Your task to perform on an android device: snooze an email in the gmail app Image 0: 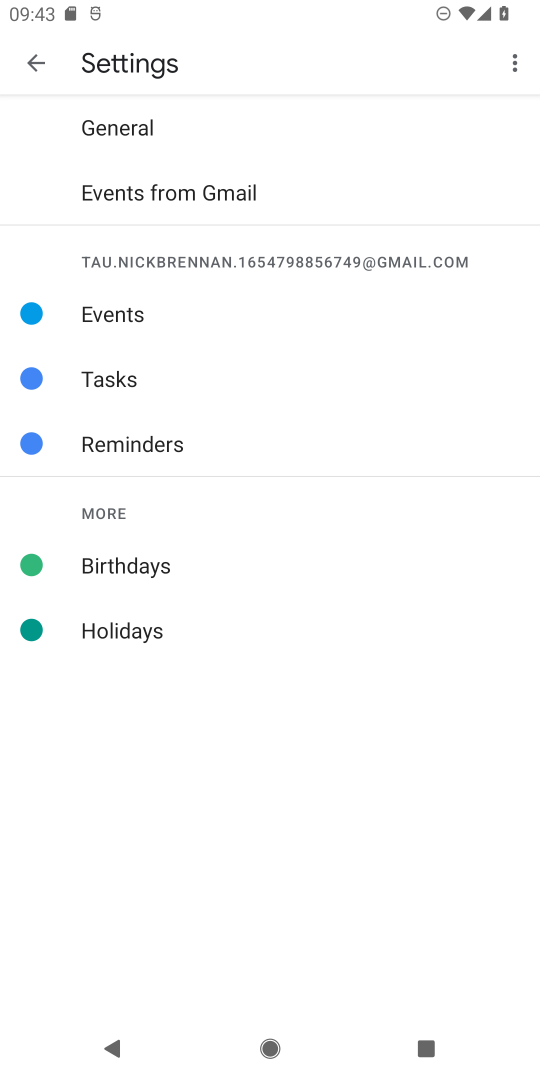
Step 0: press home button
Your task to perform on an android device: snooze an email in the gmail app Image 1: 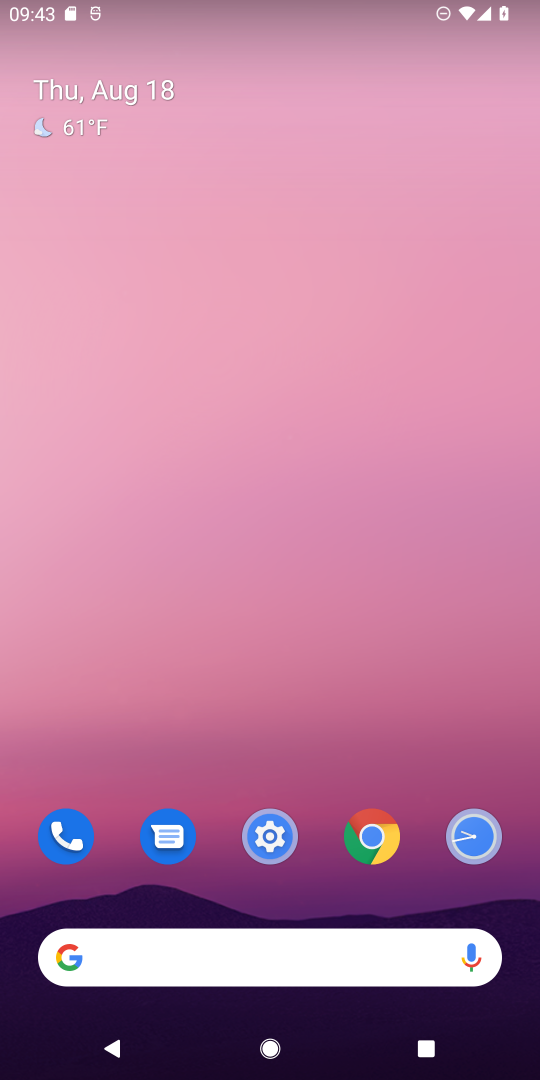
Step 1: drag from (420, 783) to (419, 198)
Your task to perform on an android device: snooze an email in the gmail app Image 2: 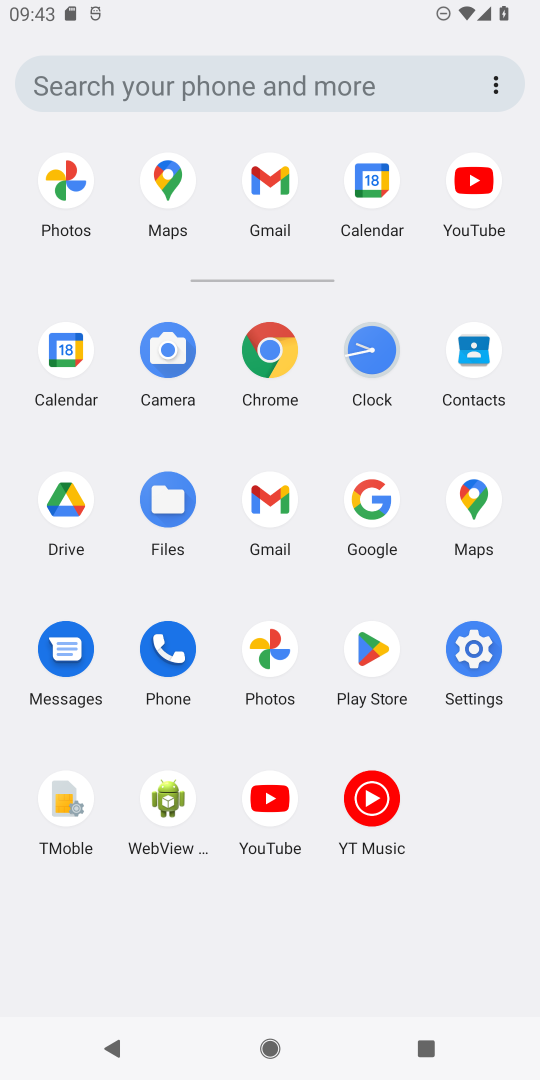
Step 2: click (279, 503)
Your task to perform on an android device: snooze an email in the gmail app Image 3: 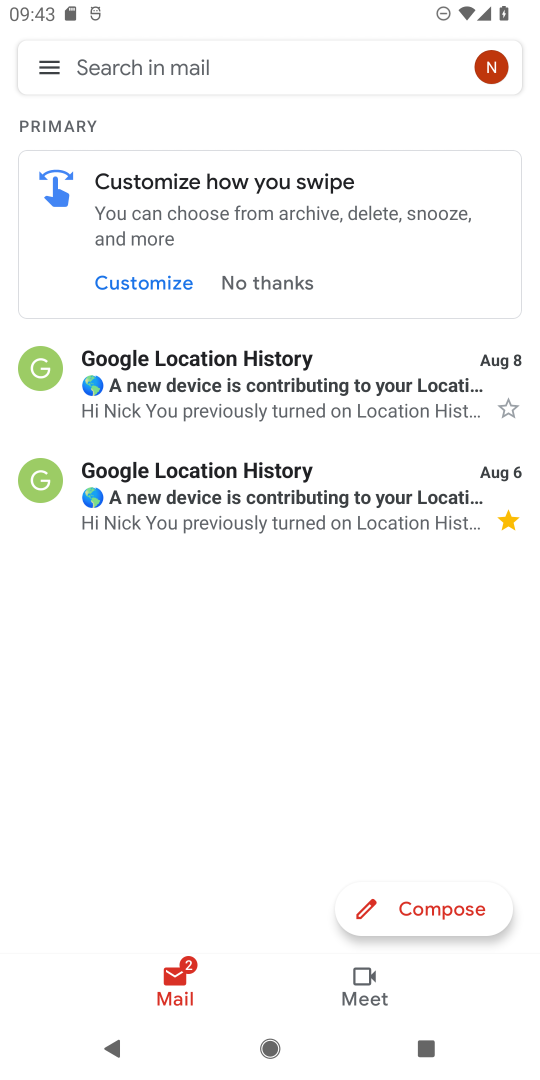
Step 3: click (43, 58)
Your task to perform on an android device: snooze an email in the gmail app Image 4: 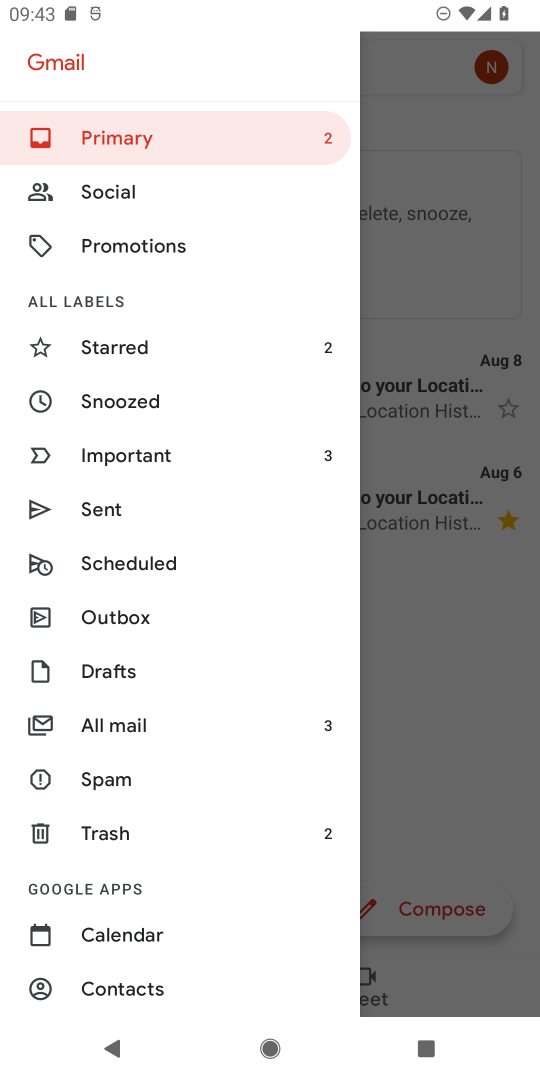
Step 4: click (425, 382)
Your task to perform on an android device: snooze an email in the gmail app Image 5: 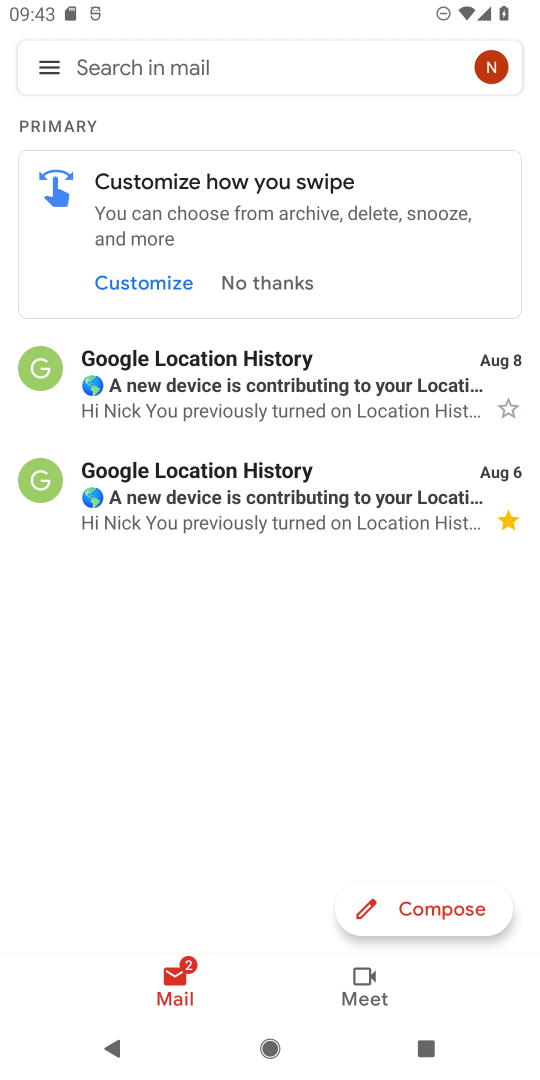
Step 5: click (365, 394)
Your task to perform on an android device: snooze an email in the gmail app Image 6: 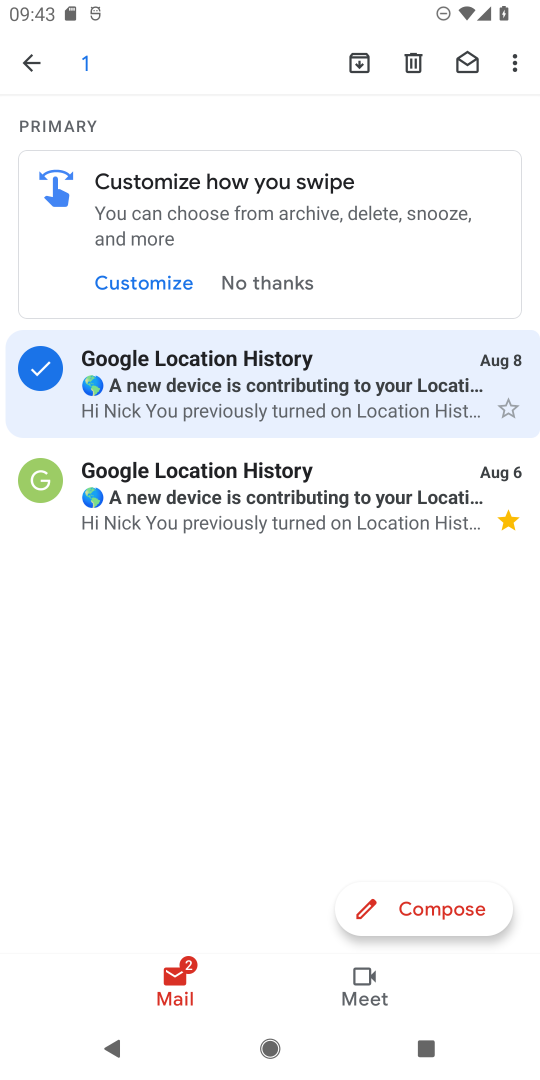
Step 6: click (513, 64)
Your task to perform on an android device: snooze an email in the gmail app Image 7: 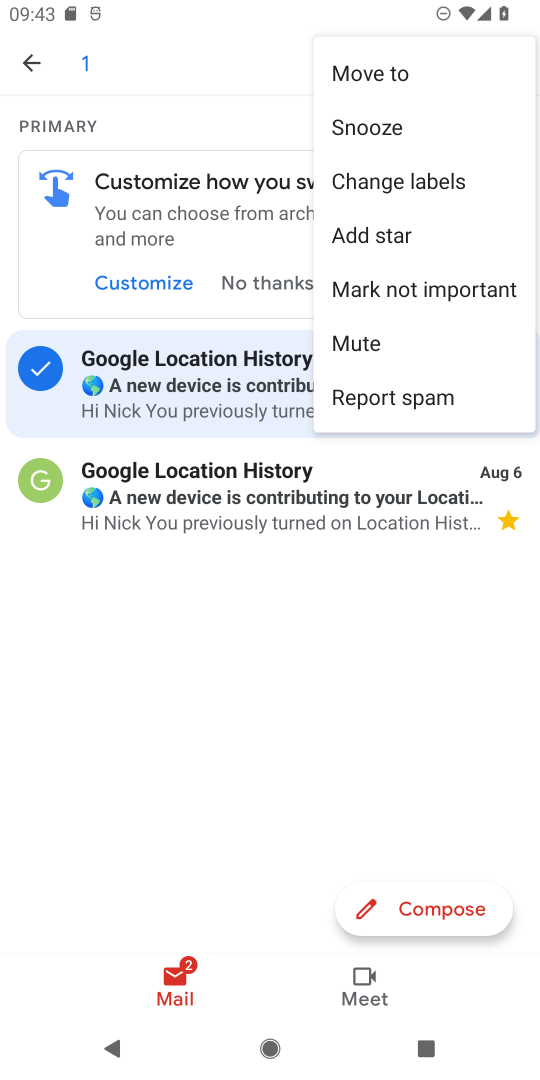
Step 7: click (381, 129)
Your task to perform on an android device: snooze an email in the gmail app Image 8: 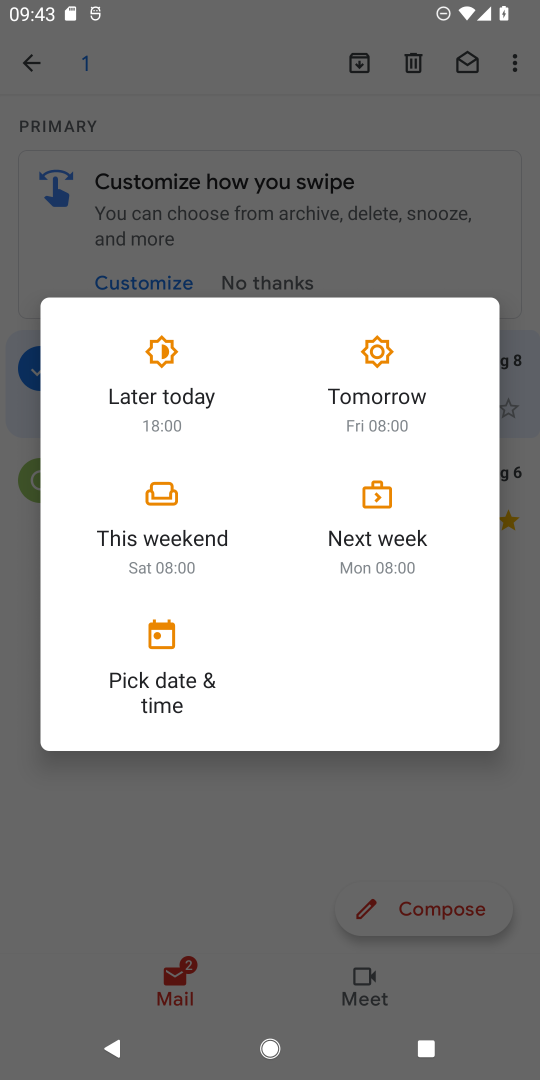
Step 8: click (388, 375)
Your task to perform on an android device: snooze an email in the gmail app Image 9: 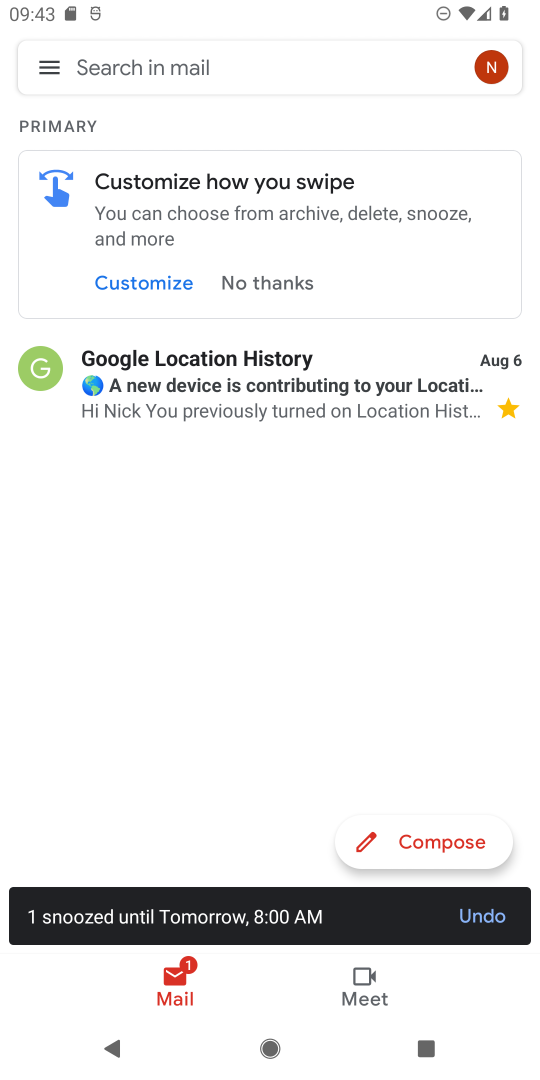
Step 9: task complete